Your task to perform on an android device: toggle priority inbox in the gmail app Image 0: 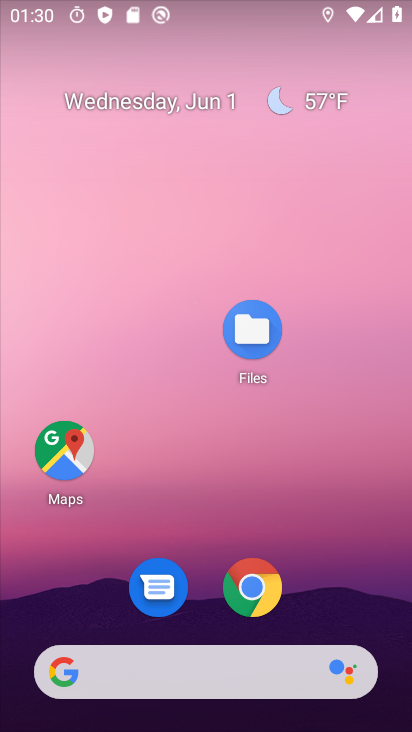
Step 0: press home button
Your task to perform on an android device: toggle priority inbox in the gmail app Image 1: 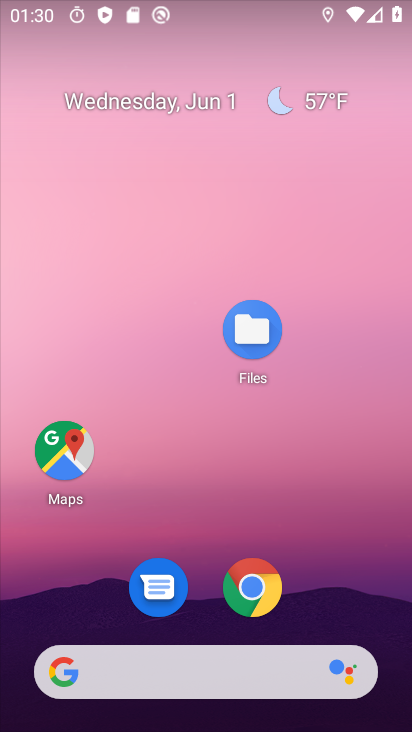
Step 1: drag from (362, 547) to (355, 12)
Your task to perform on an android device: toggle priority inbox in the gmail app Image 2: 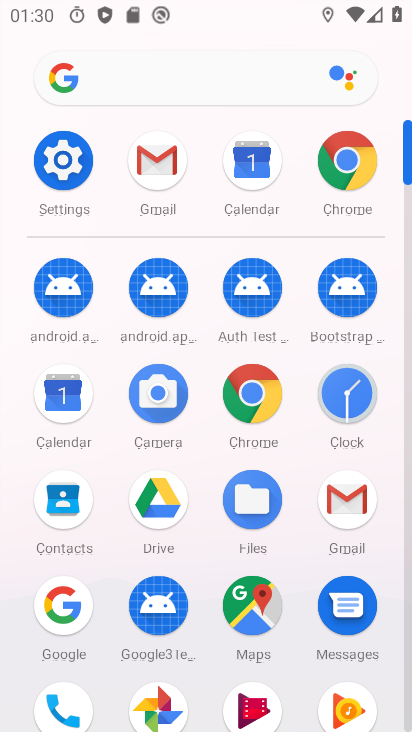
Step 2: click (163, 173)
Your task to perform on an android device: toggle priority inbox in the gmail app Image 3: 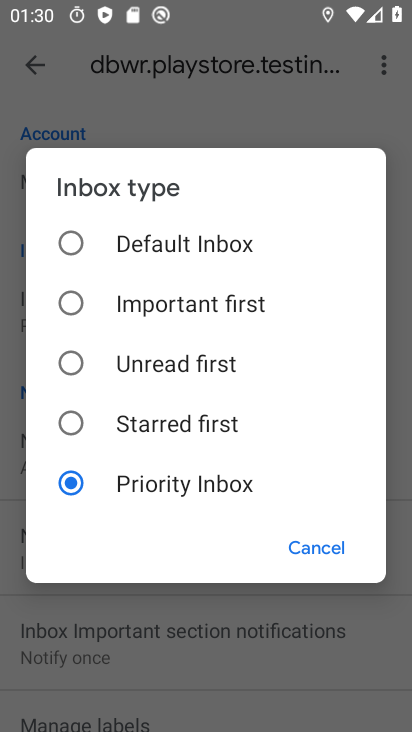
Step 3: click (101, 241)
Your task to perform on an android device: toggle priority inbox in the gmail app Image 4: 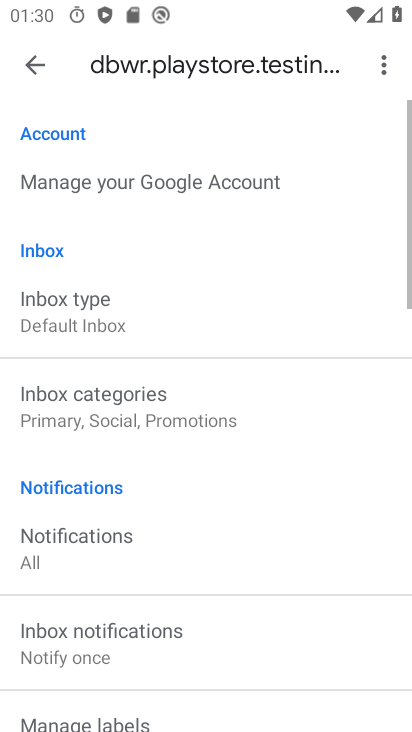
Step 4: task complete